Your task to perform on an android device: read, delete, or share a saved page in the chrome app Image 0: 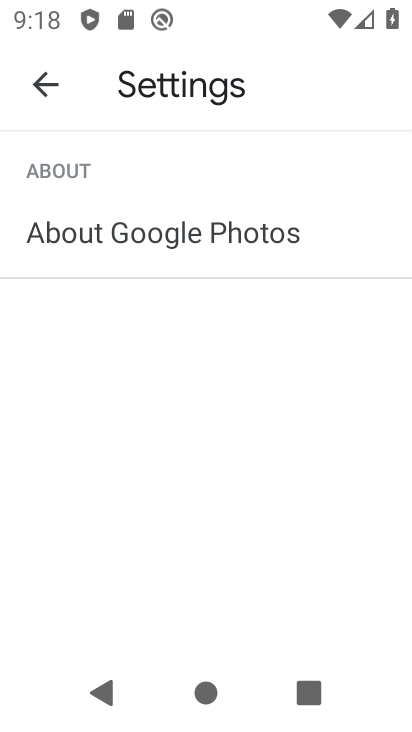
Step 0: press home button
Your task to perform on an android device: read, delete, or share a saved page in the chrome app Image 1: 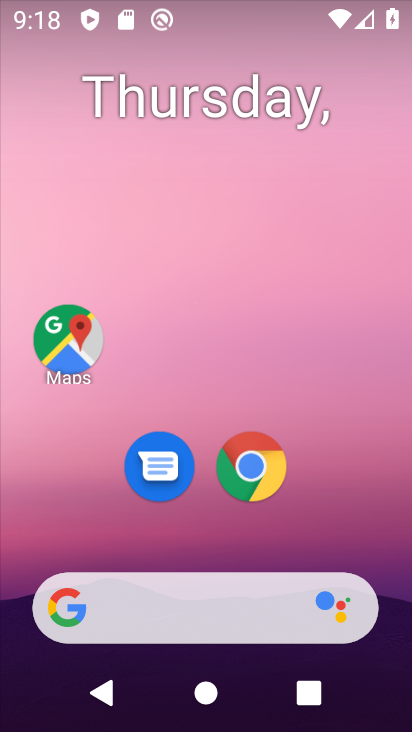
Step 1: drag from (396, 524) to (357, 159)
Your task to perform on an android device: read, delete, or share a saved page in the chrome app Image 2: 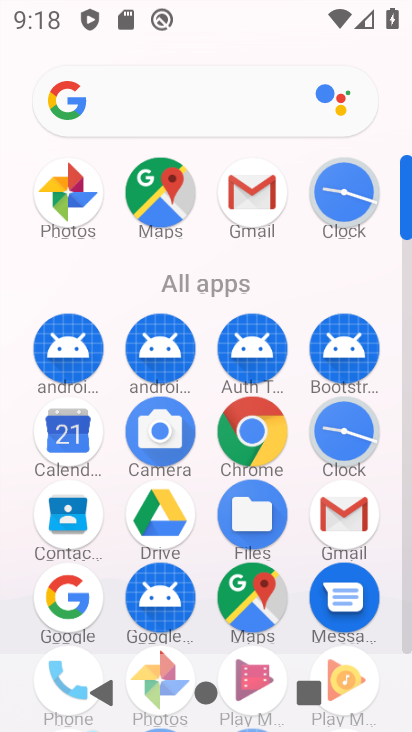
Step 2: click (250, 432)
Your task to perform on an android device: read, delete, or share a saved page in the chrome app Image 3: 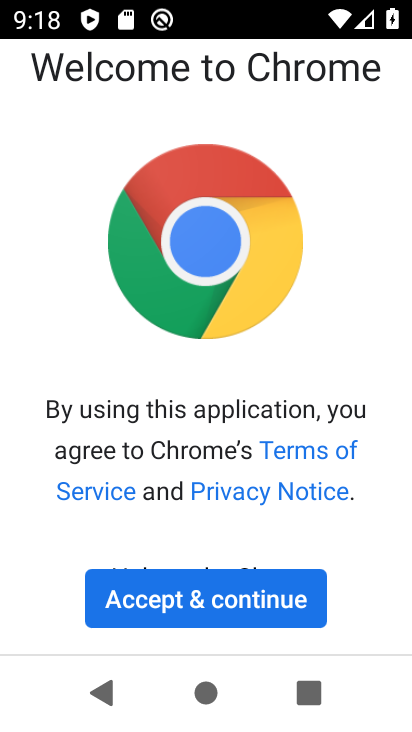
Step 3: click (265, 594)
Your task to perform on an android device: read, delete, or share a saved page in the chrome app Image 4: 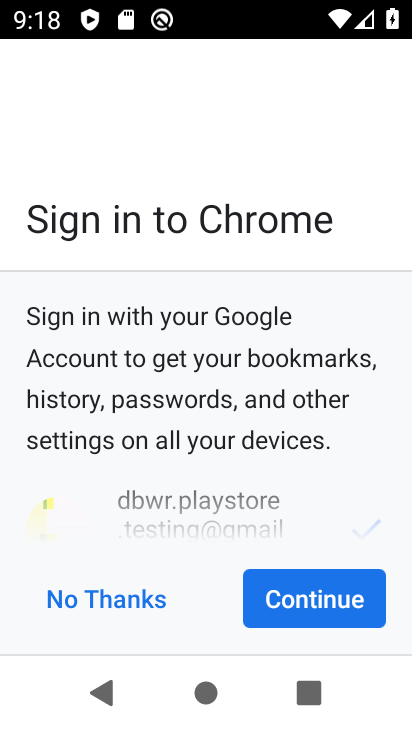
Step 4: click (278, 604)
Your task to perform on an android device: read, delete, or share a saved page in the chrome app Image 5: 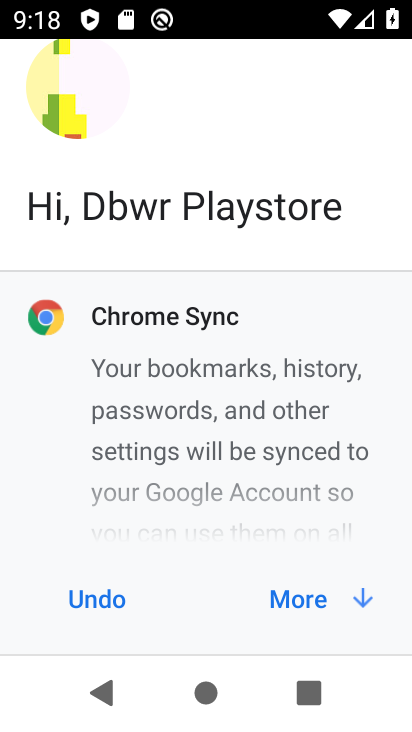
Step 5: click (280, 603)
Your task to perform on an android device: read, delete, or share a saved page in the chrome app Image 6: 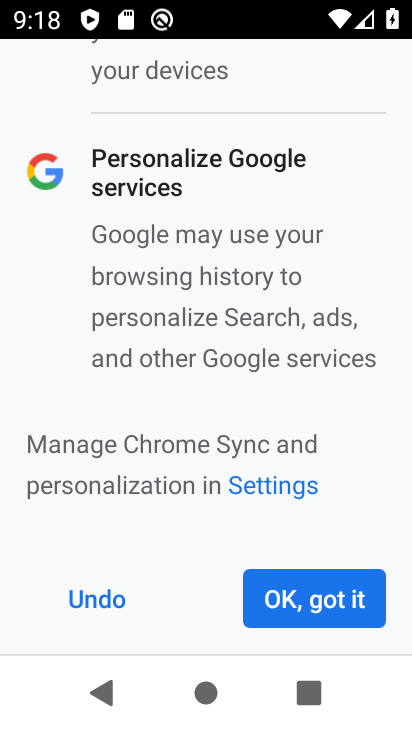
Step 6: click (280, 603)
Your task to perform on an android device: read, delete, or share a saved page in the chrome app Image 7: 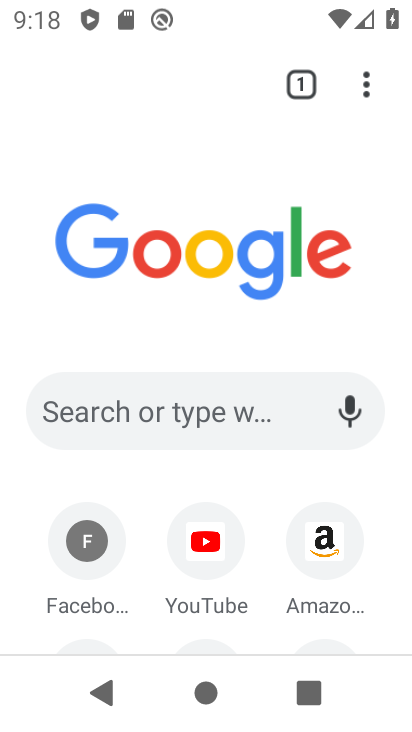
Step 7: task complete